Your task to perform on an android device: Open Reddit.com Image 0: 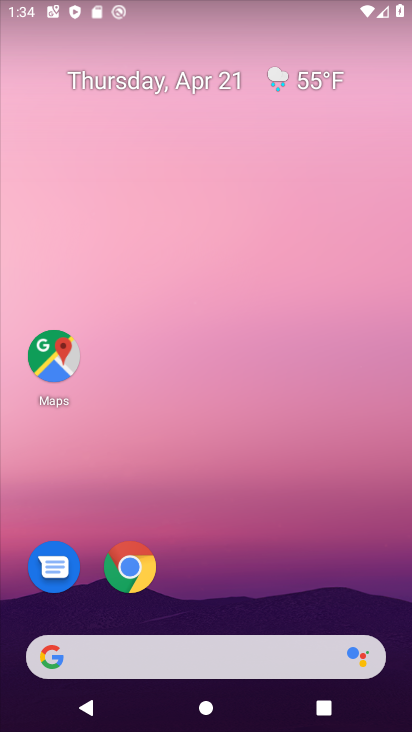
Step 0: click (130, 571)
Your task to perform on an android device: Open Reddit.com Image 1: 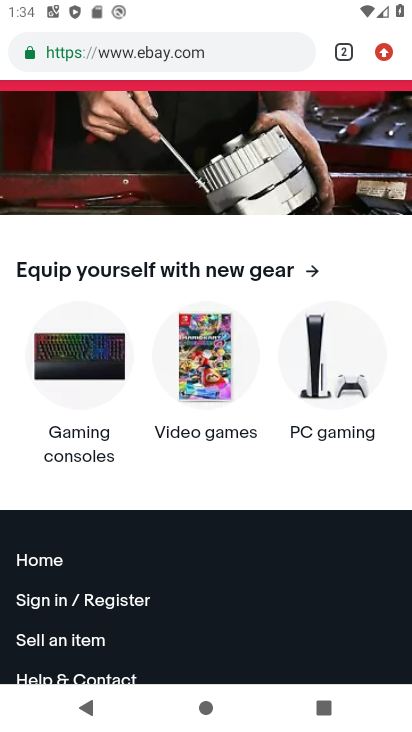
Step 1: click (342, 43)
Your task to perform on an android device: Open Reddit.com Image 2: 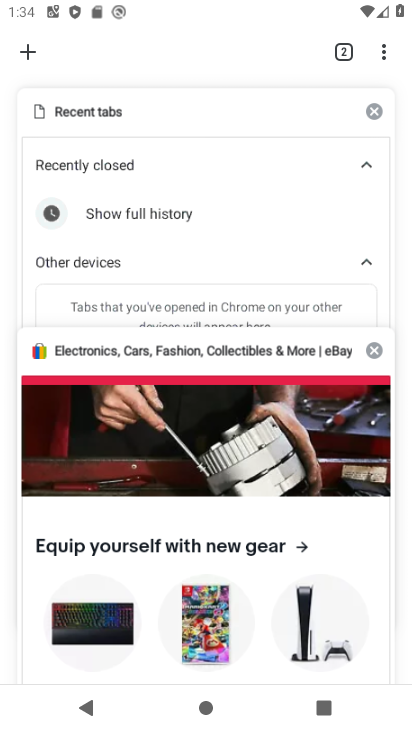
Step 2: click (369, 109)
Your task to perform on an android device: Open Reddit.com Image 3: 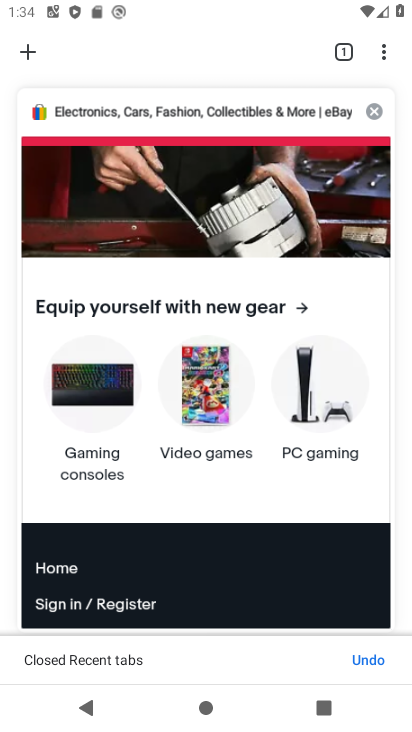
Step 3: click (369, 109)
Your task to perform on an android device: Open Reddit.com Image 4: 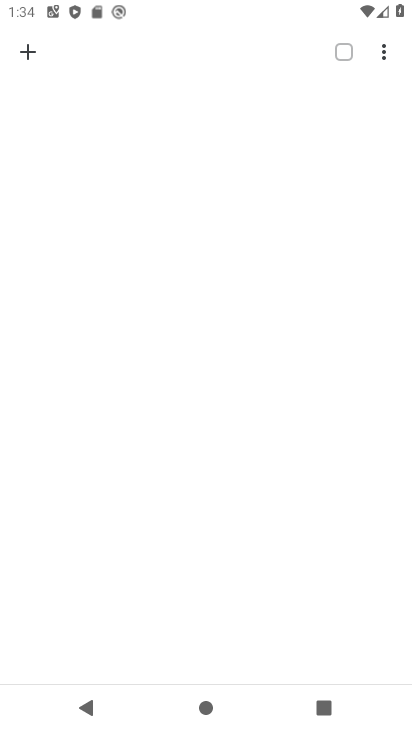
Step 4: click (29, 49)
Your task to perform on an android device: Open Reddit.com Image 5: 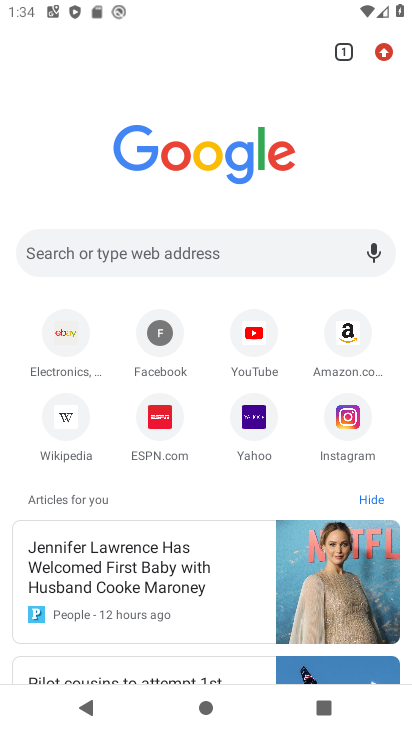
Step 5: click (178, 246)
Your task to perform on an android device: Open Reddit.com Image 6: 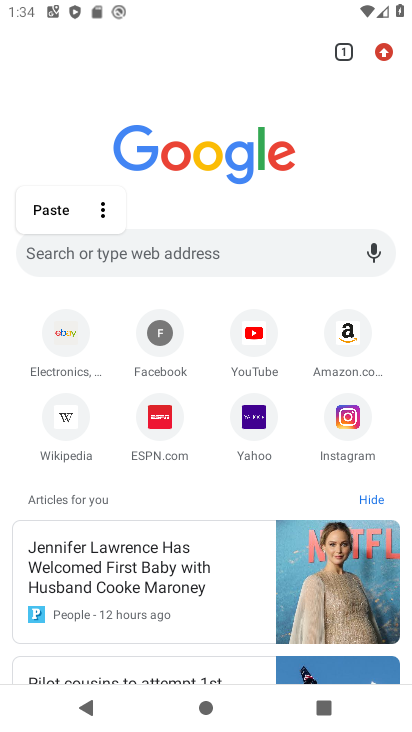
Step 6: click (169, 249)
Your task to perform on an android device: Open Reddit.com Image 7: 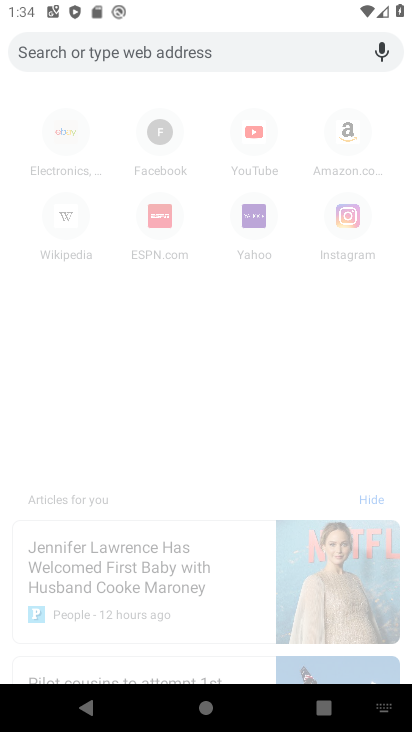
Step 7: type "reddit"
Your task to perform on an android device: Open Reddit.com Image 8: 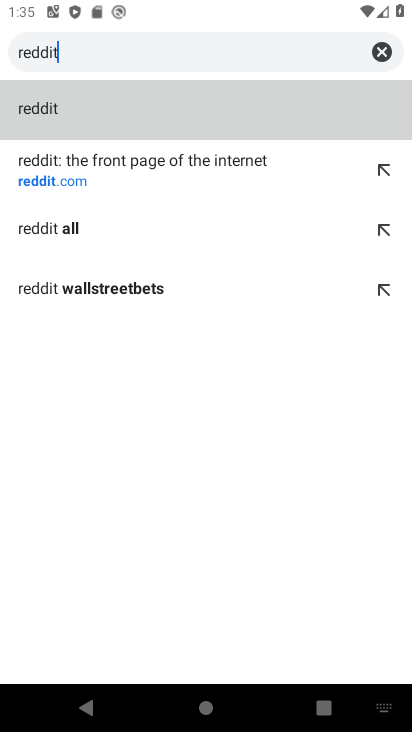
Step 8: click (280, 177)
Your task to perform on an android device: Open Reddit.com Image 9: 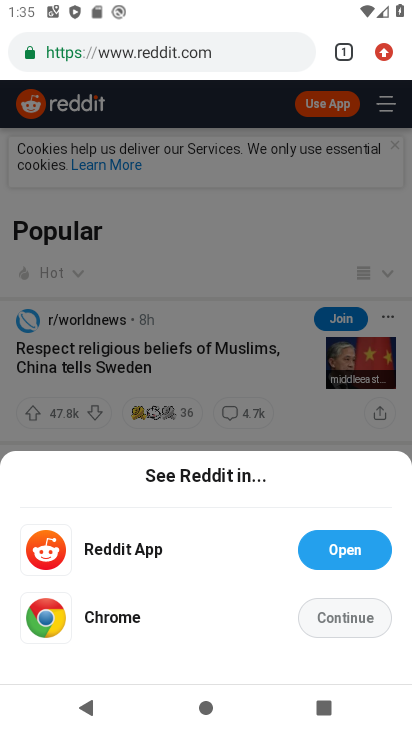
Step 9: click (357, 609)
Your task to perform on an android device: Open Reddit.com Image 10: 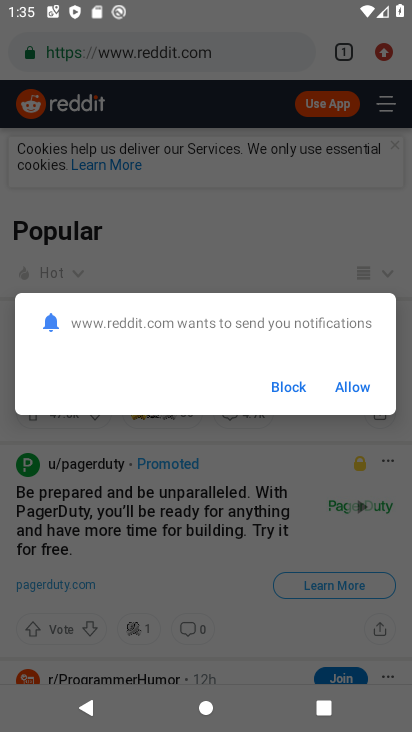
Step 10: click (276, 385)
Your task to perform on an android device: Open Reddit.com Image 11: 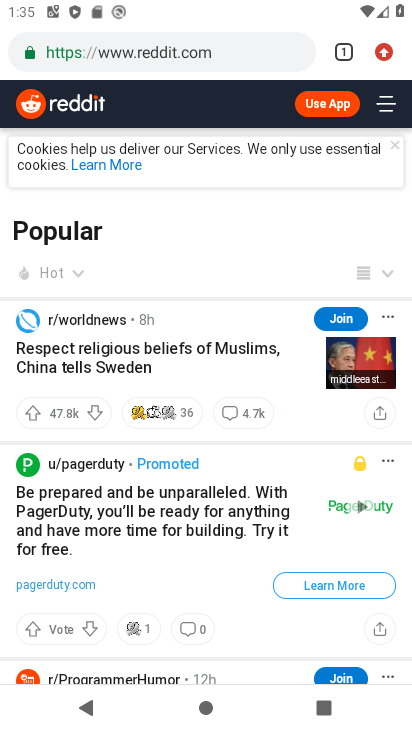
Step 11: task complete